Your task to perform on an android device: Do I have any events today? Image 0: 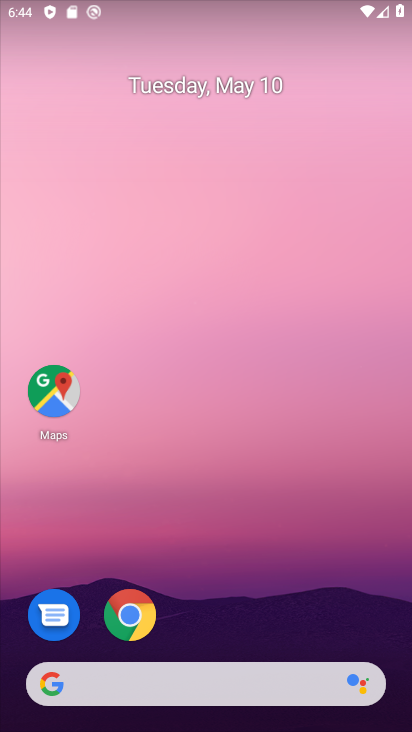
Step 0: drag from (255, 527) to (195, 0)
Your task to perform on an android device: Do I have any events today? Image 1: 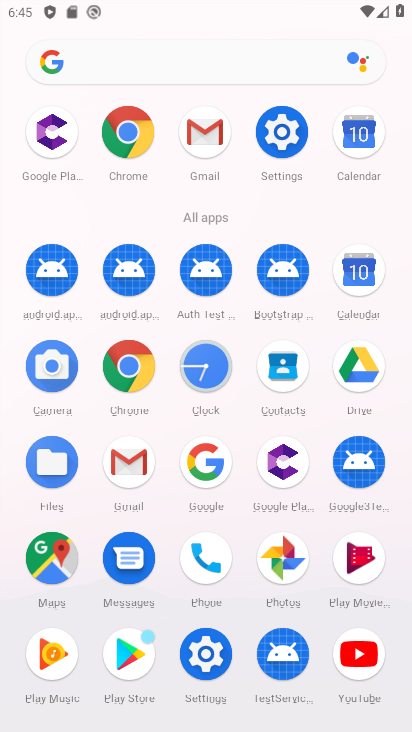
Step 1: click (358, 273)
Your task to perform on an android device: Do I have any events today? Image 2: 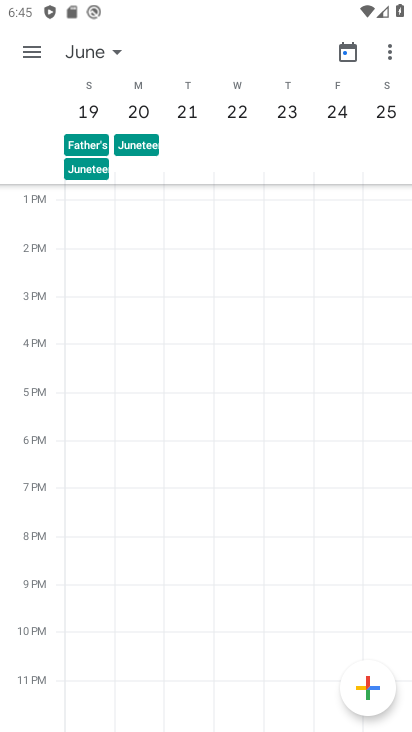
Step 2: click (114, 53)
Your task to perform on an android device: Do I have any events today? Image 3: 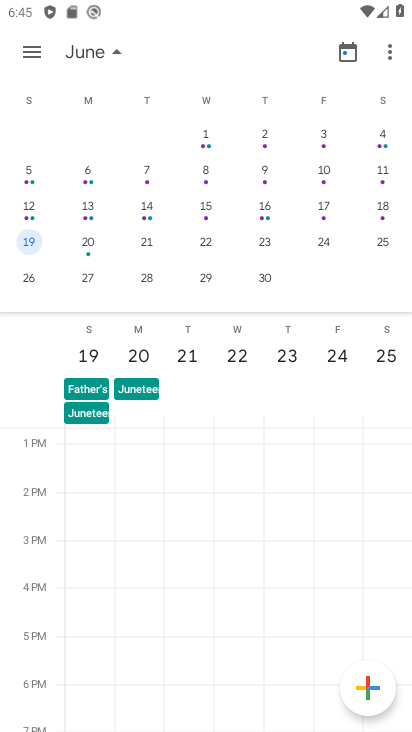
Step 3: drag from (42, 181) to (359, 177)
Your task to perform on an android device: Do I have any events today? Image 4: 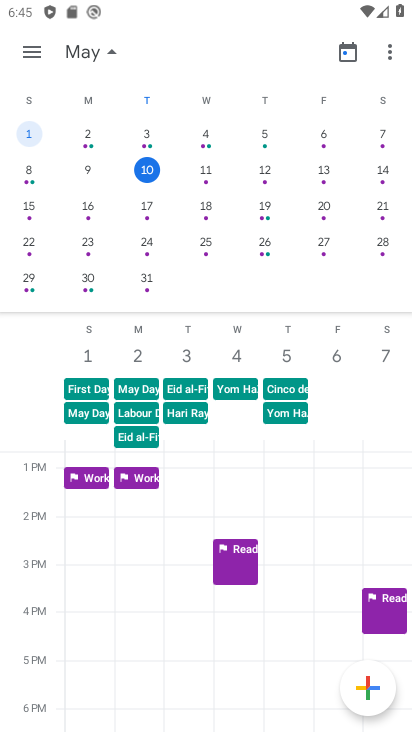
Step 4: click (28, 47)
Your task to perform on an android device: Do I have any events today? Image 5: 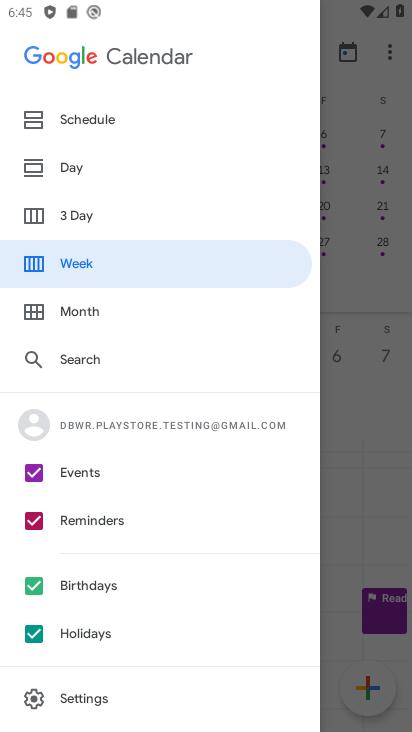
Step 5: click (70, 157)
Your task to perform on an android device: Do I have any events today? Image 6: 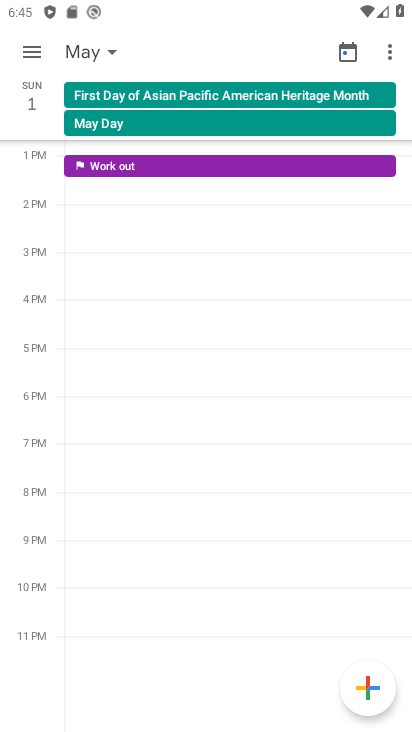
Step 6: click (111, 45)
Your task to perform on an android device: Do I have any events today? Image 7: 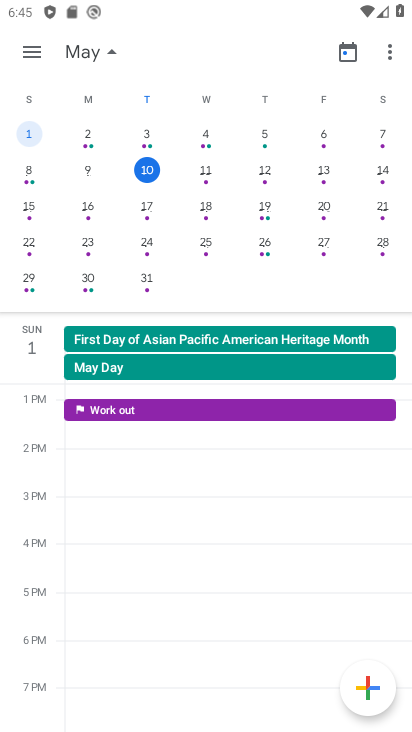
Step 7: task complete